Your task to perform on an android device: open the mobile data screen to see how much data has been used Image 0: 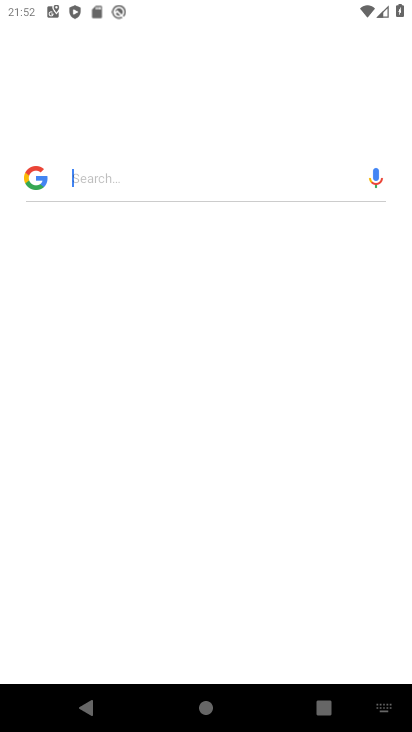
Step 0: press home button
Your task to perform on an android device: open the mobile data screen to see how much data has been used Image 1: 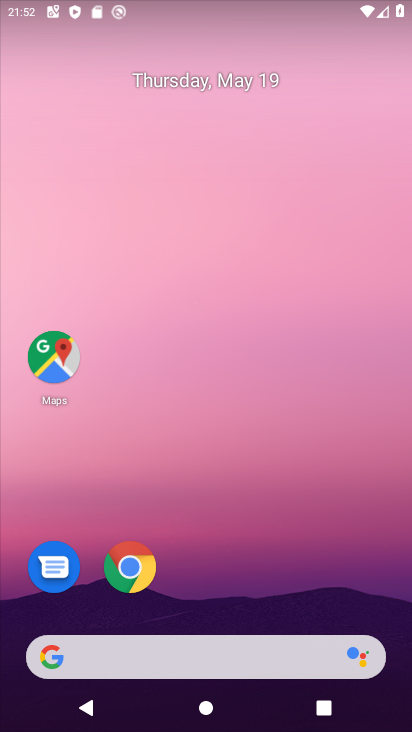
Step 1: drag from (205, 616) to (278, 136)
Your task to perform on an android device: open the mobile data screen to see how much data has been used Image 2: 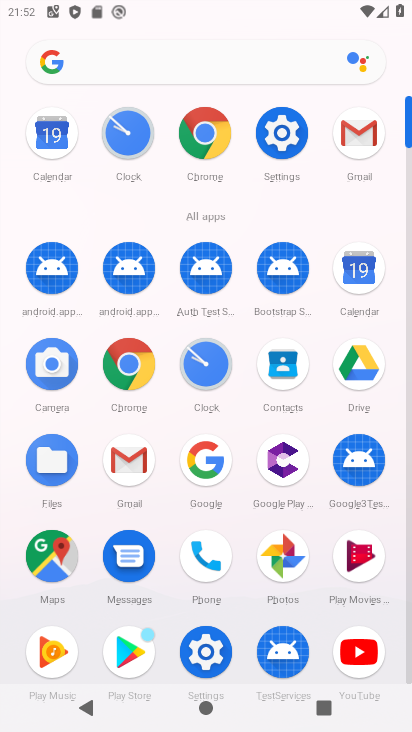
Step 2: click (283, 130)
Your task to perform on an android device: open the mobile data screen to see how much data has been used Image 3: 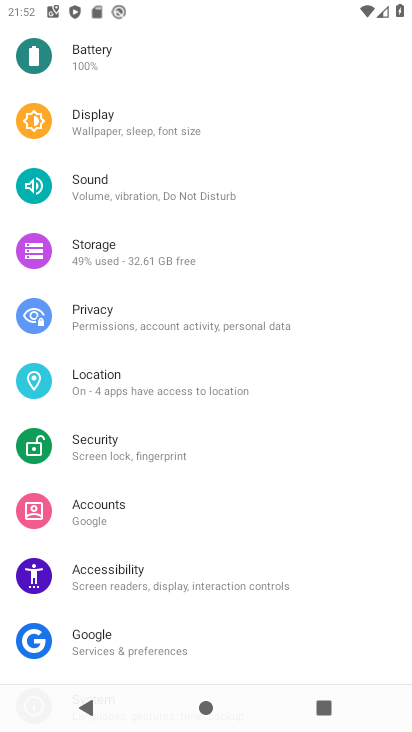
Step 3: drag from (161, 86) to (146, 591)
Your task to perform on an android device: open the mobile data screen to see how much data has been used Image 4: 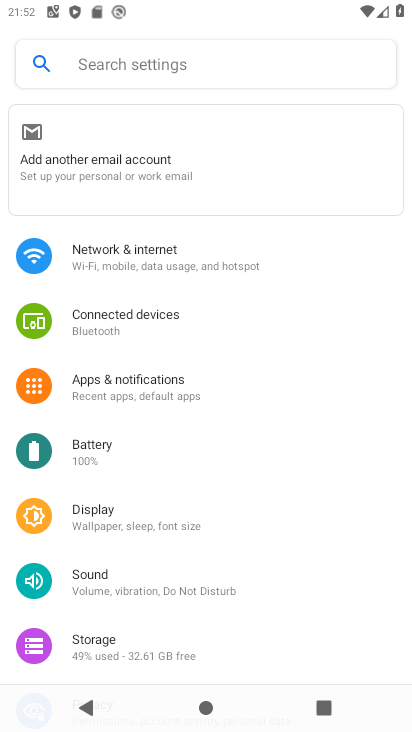
Step 4: click (162, 264)
Your task to perform on an android device: open the mobile data screen to see how much data has been used Image 5: 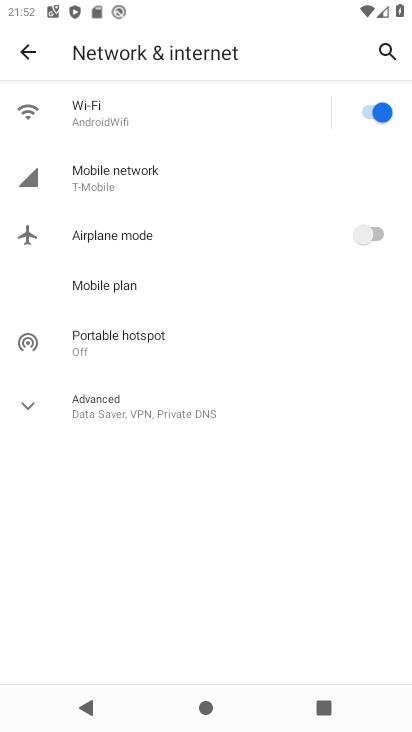
Step 5: click (136, 177)
Your task to perform on an android device: open the mobile data screen to see how much data has been used Image 6: 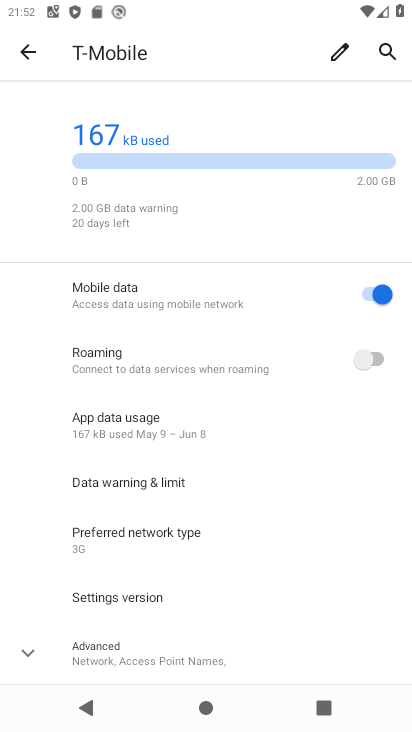
Step 6: click (170, 419)
Your task to perform on an android device: open the mobile data screen to see how much data has been used Image 7: 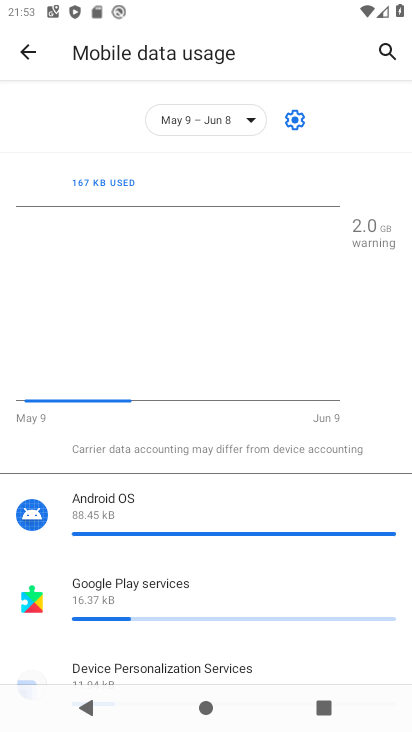
Step 7: task complete